Your task to perform on an android device: Find coffee shops on Maps Image 0: 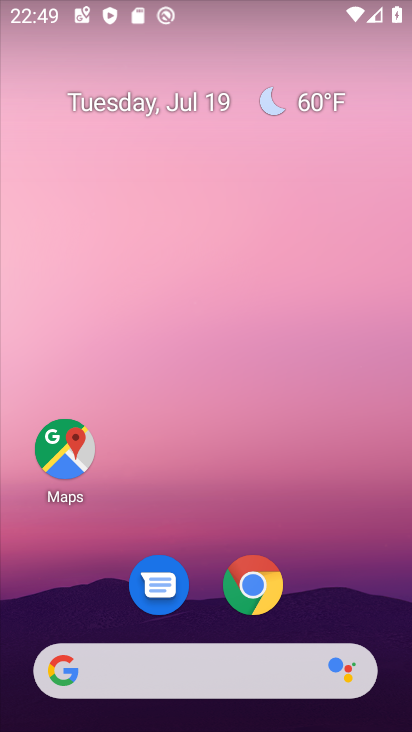
Step 0: click (68, 457)
Your task to perform on an android device: Find coffee shops on Maps Image 1: 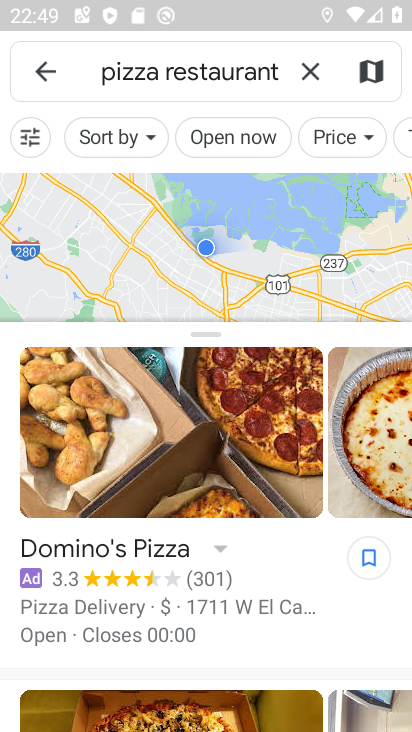
Step 1: click (311, 67)
Your task to perform on an android device: Find coffee shops on Maps Image 2: 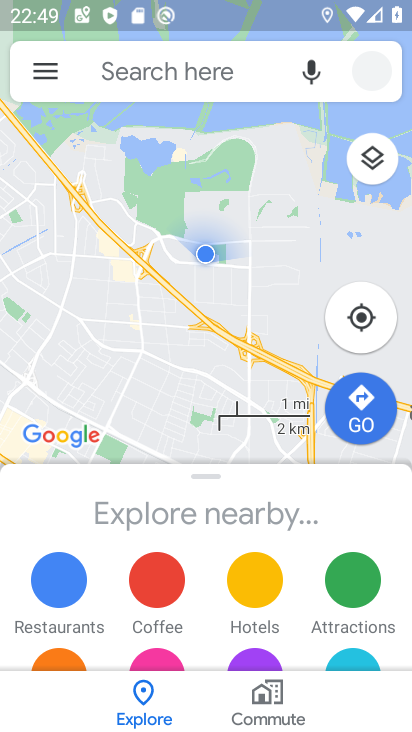
Step 2: click (215, 66)
Your task to perform on an android device: Find coffee shops on Maps Image 3: 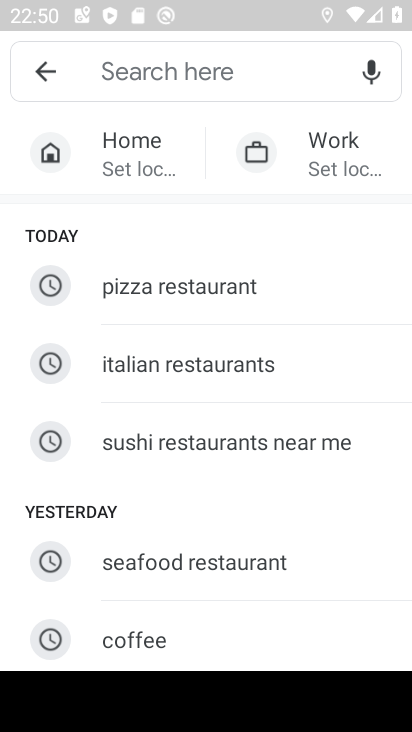
Step 3: click (155, 640)
Your task to perform on an android device: Find coffee shops on Maps Image 4: 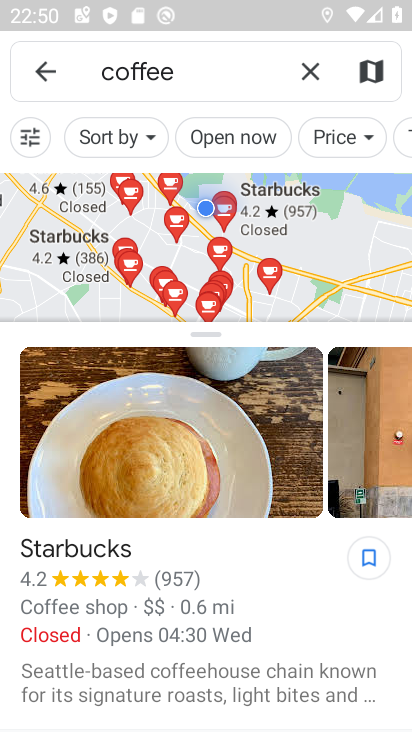
Step 4: task complete